Your task to perform on an android device: Do I have any events today? Image 0: 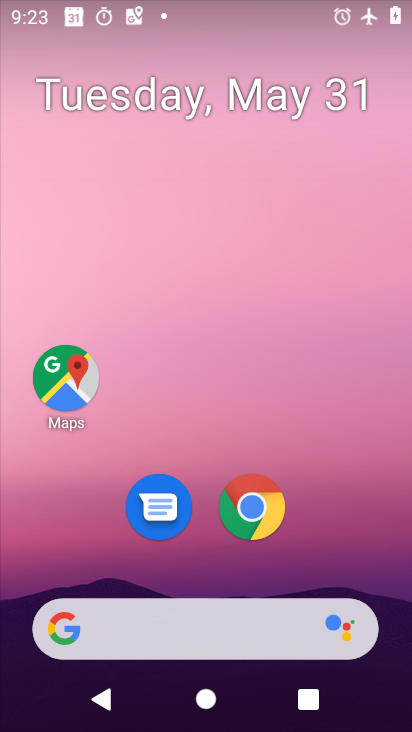
Step 0: drag from (15, 608) to (278, 174)
Your task to perform on an android device: Do I have any events today? Image 1: 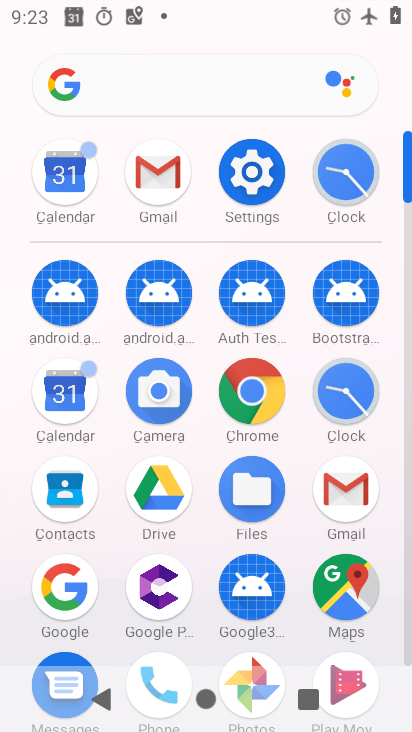
Step 1: click (75, 376)
Your task to perform on an android device: Do I have any events today? Image 2: 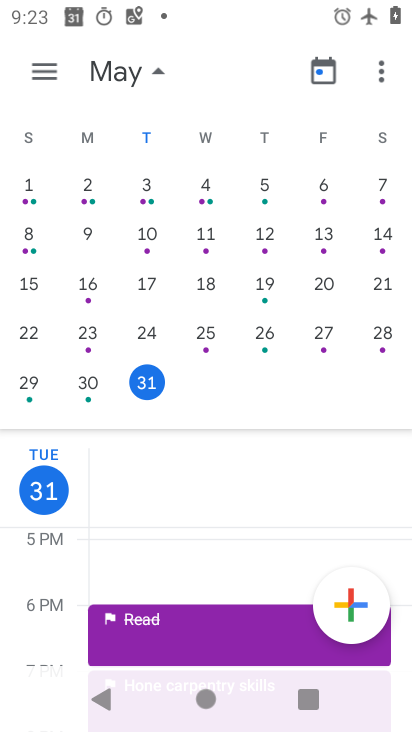
Step 2: click (143, 377)
Your task to perform on an android device: Do I have any events today? Image 3: 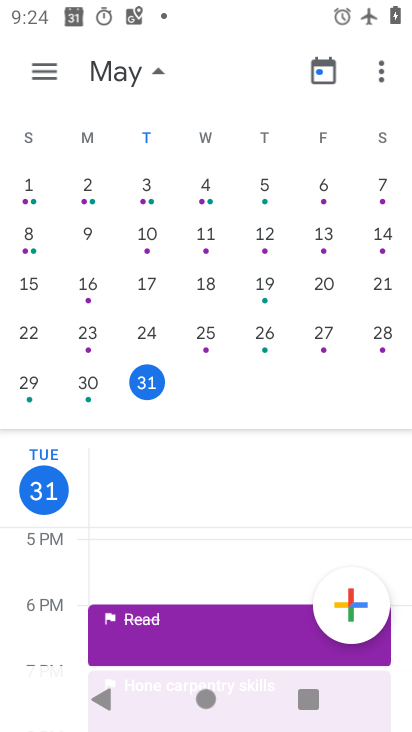
Step 3: task complete